Your task to perform on an android device: turn pop-ups off in chrome Image 0: 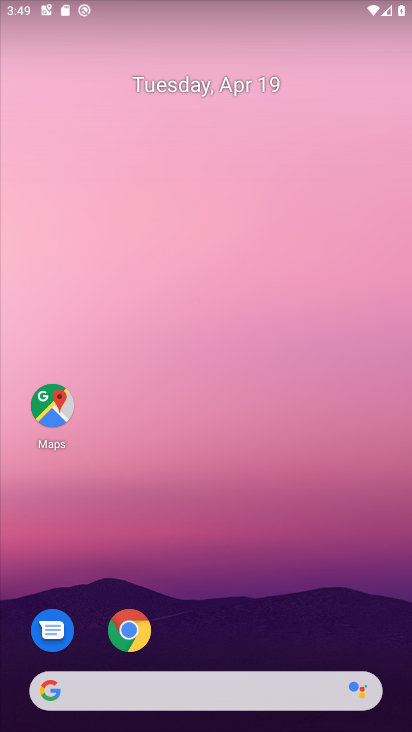
Step 0: click (132, 641)
Your task to perform on an android device: turn pop-ups off in chrome Image 1: 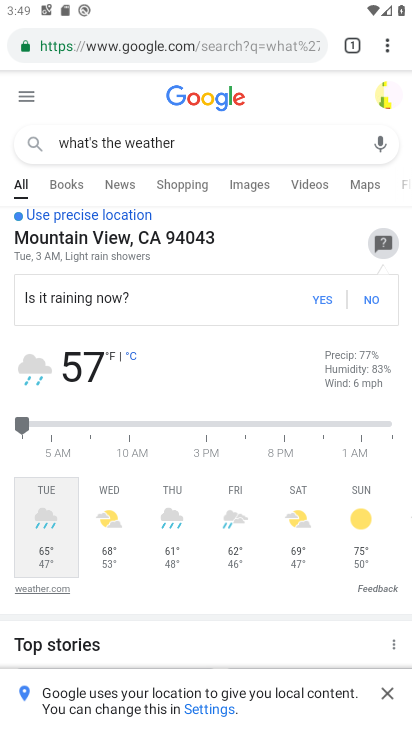
Step 1: drag from (390, 47) to (234, 562)
Your task to perform on an android device: turn pop-ups off in chrome Image 2: 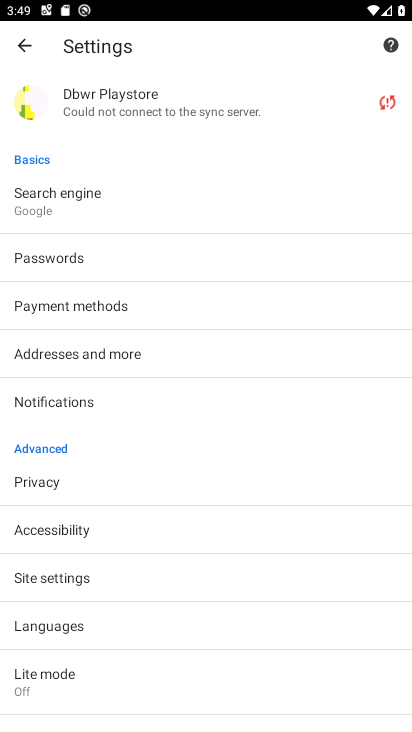
Step 2: drag from (155, 557) to (171, 192)
Your task to perform on an android device: turn pop-ups off in chrome Image 3: 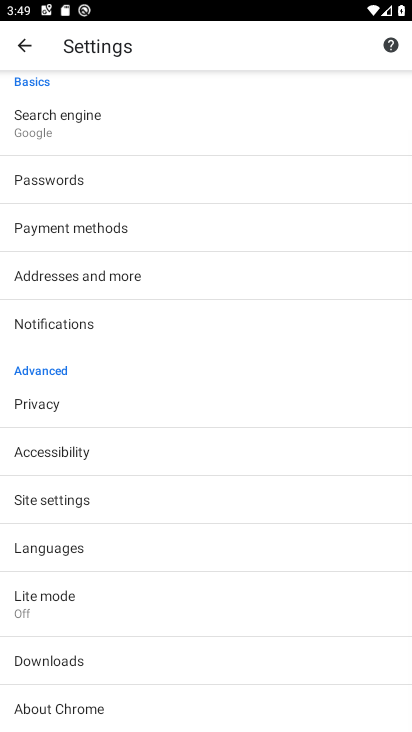
Step 3: drag from (167, 622) to (173, 242)
Your task to perform on an android device: turn pop-ups off in chrome Image 4: 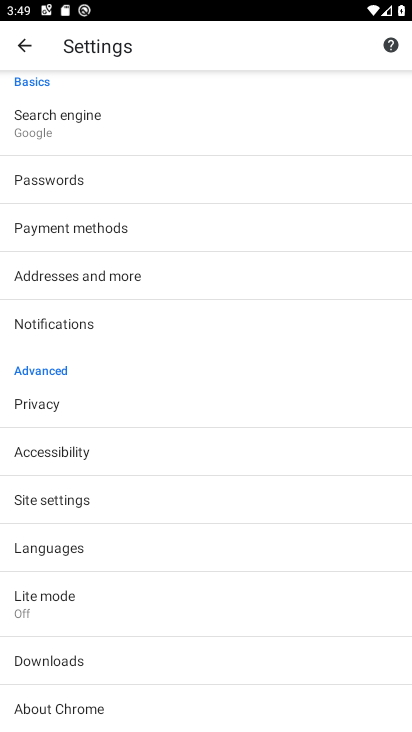
Step 4: click (85, 509)
Your task to perform on an android device: turn pop-ups off in chrome Image 5: 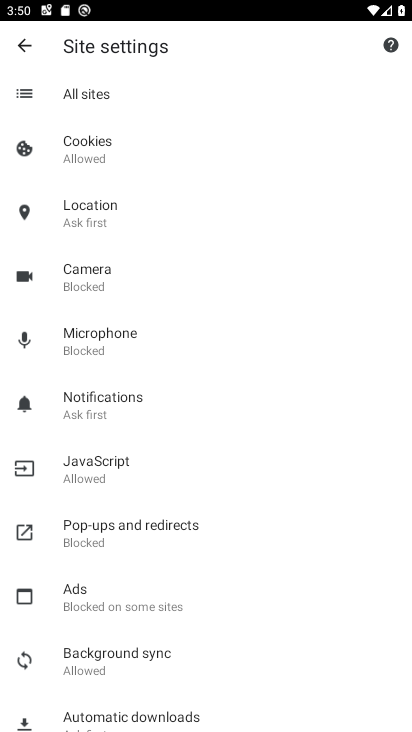
Step 5: click (74, 532)
Your task to perform on an android device: turn pop-ups off in chrome Image 6: 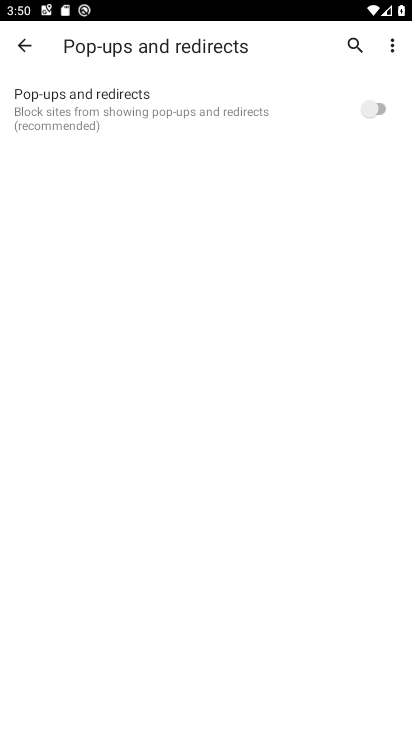
Step 6: task complete